Your task to perform on an android device: open app "Microsoft Outlook" Image 0: 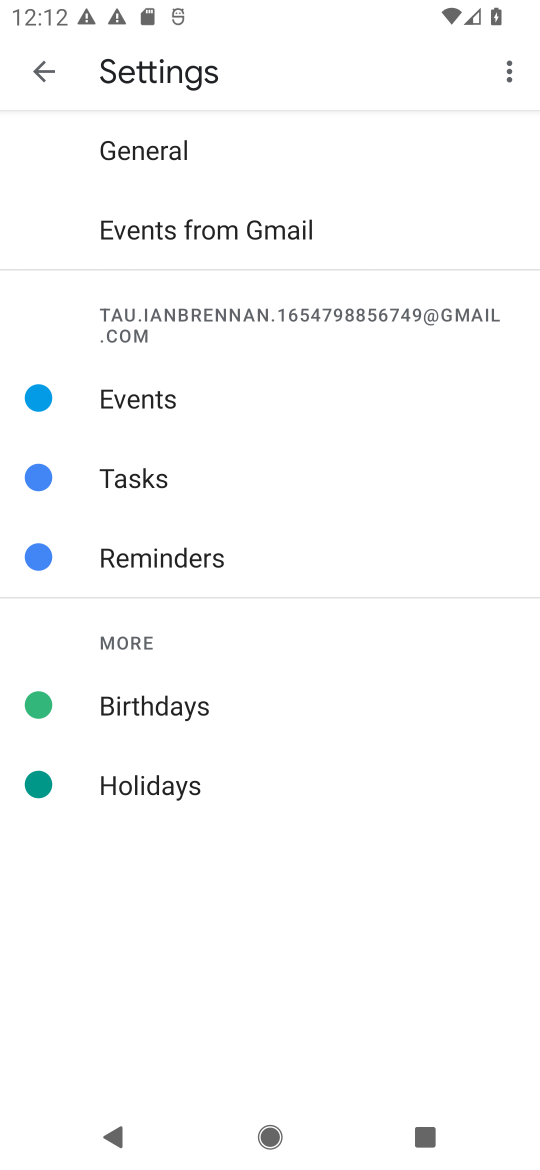
Step 0: click (38, 66)
Your task to perform on an android device: open app "Microsoft Outlook" Image 1: 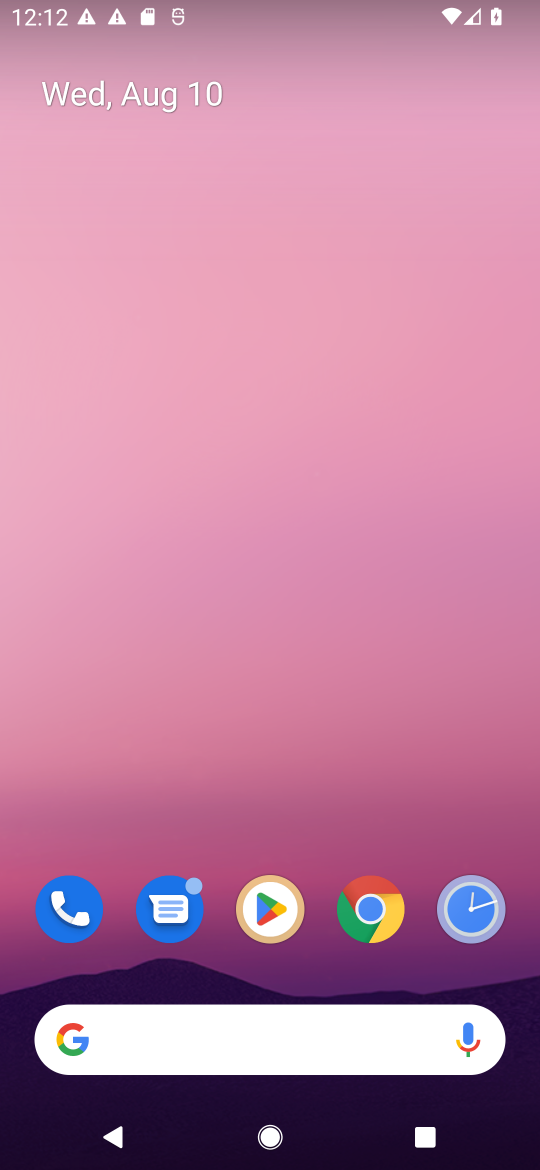
Step 1: drag from (181, 971) to (295, 323)
Your task to perform on an android device: open app "Microsoft Outlook" Image 2: 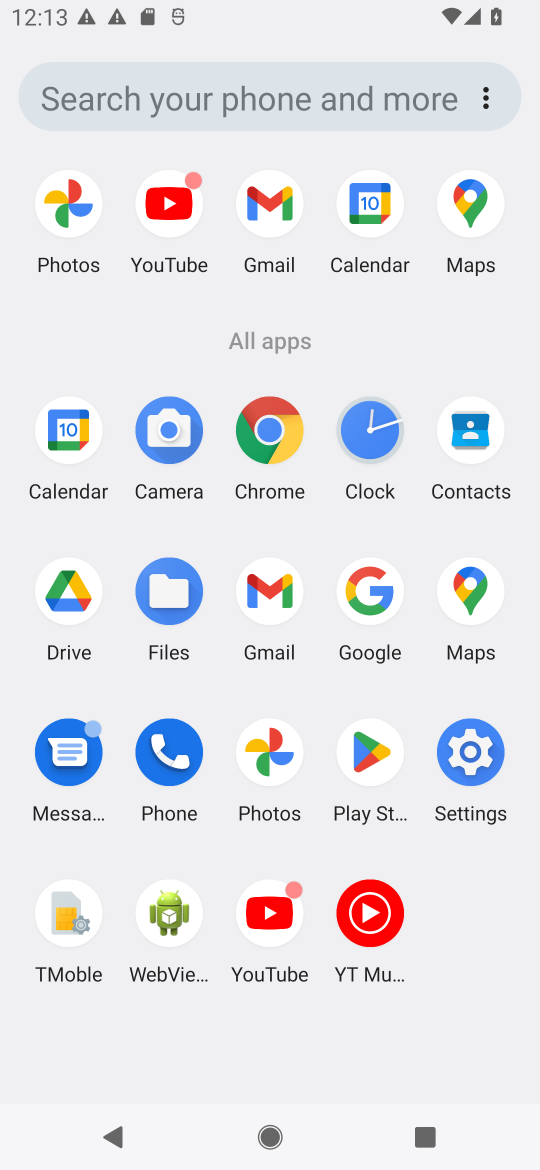
Step 2: click (357, 738)
Your task to perform on an android device: open app "Microsoft Outlook" Image 3: 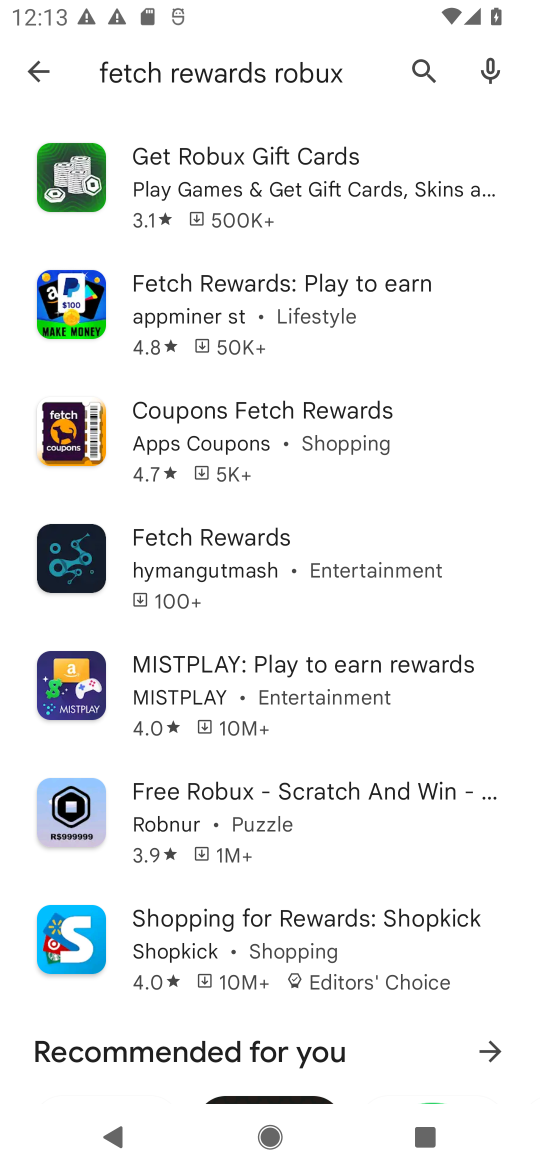
Step 3: click (30, 66)
Your task to perform on an android device: open app "Microsoft Outlook" Image 4: 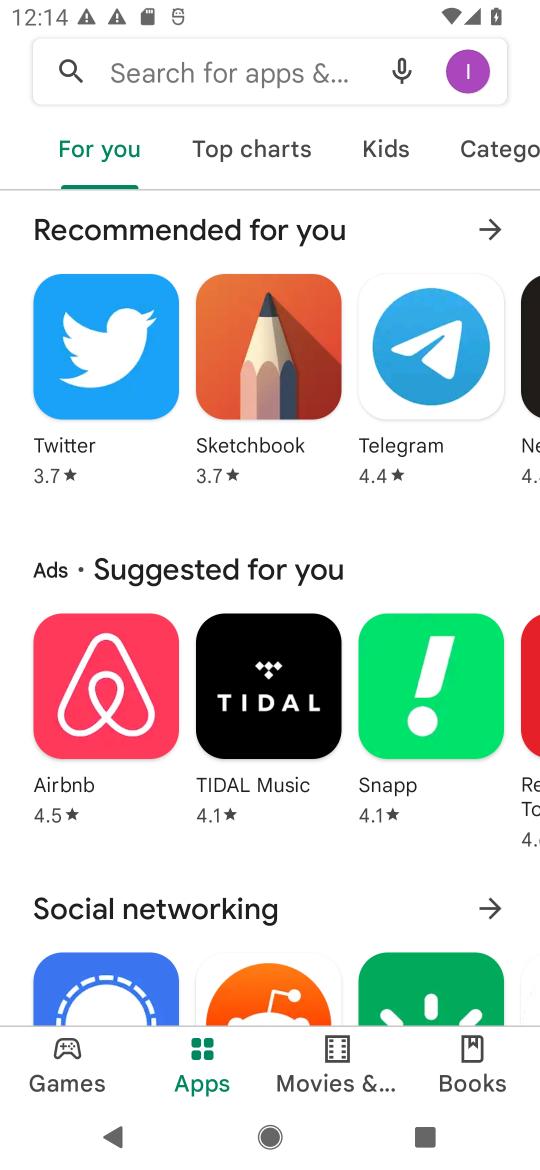
Step 4: click (276, 73)
Your task to perform on an android device: open app "Microsoft Outlook" Image 5: 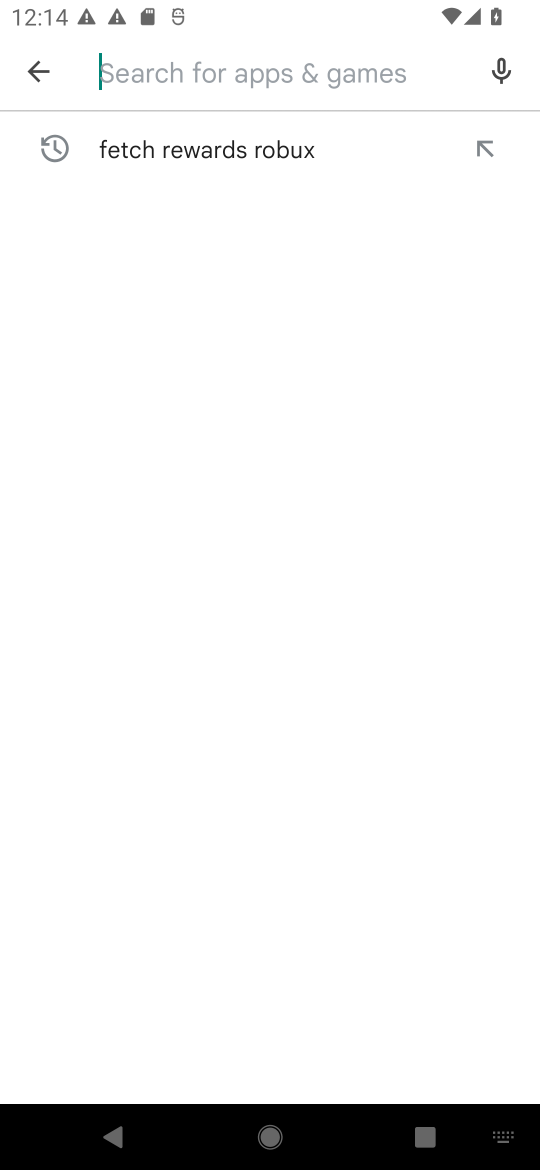
Step 5: type "Microsoft Outlook "
Your task to perform on an android device: open app "Microsoft Outlook" Image 6: 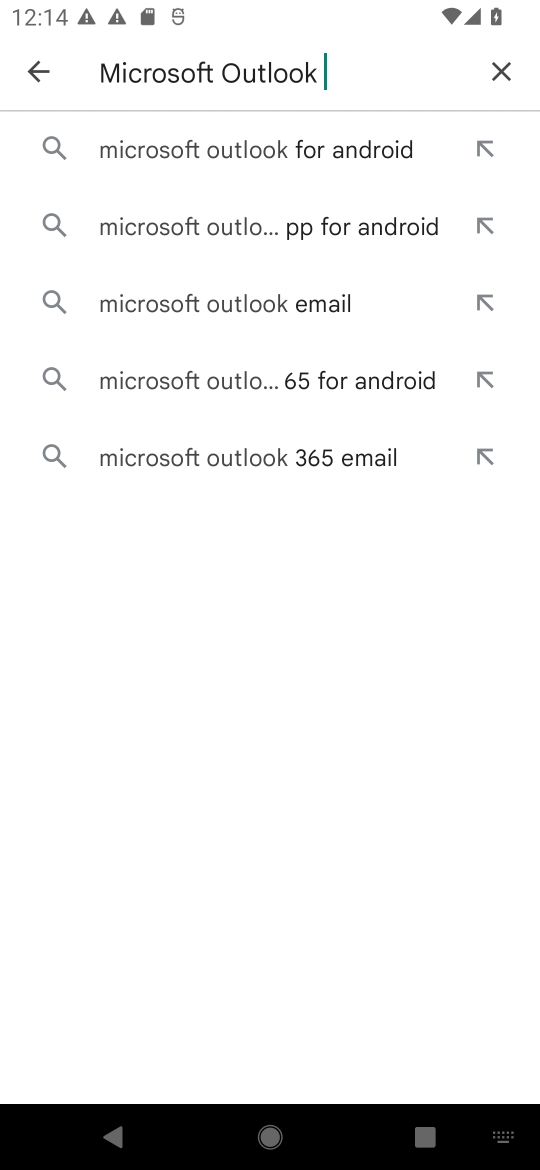
Step 6: click (366, 159)
Your task to perform on an android device: open app "Microsoft Outlook" Image 7: 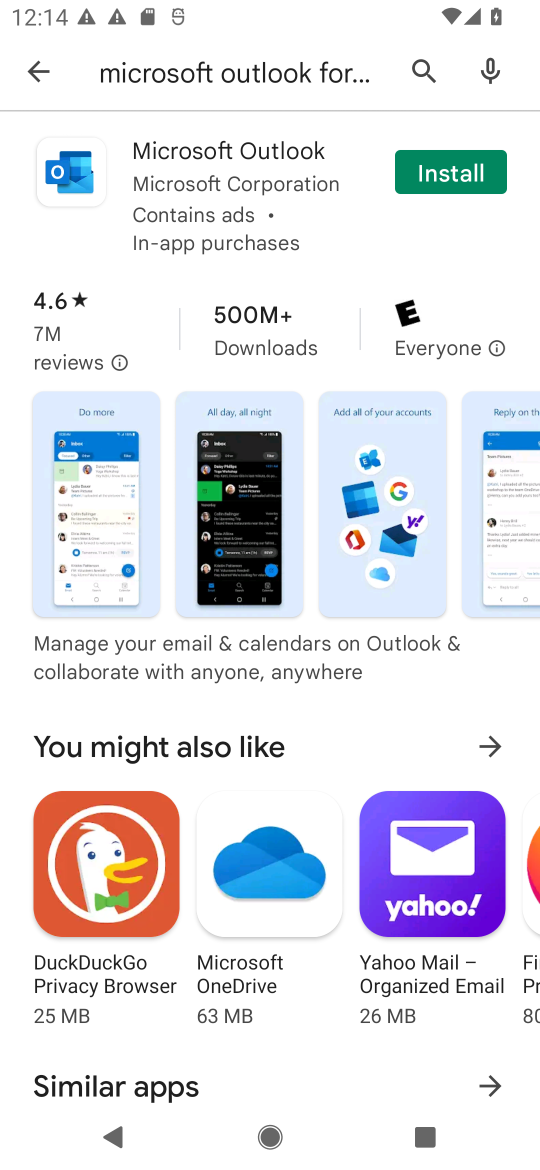
Step 7: click (446, 178)
Your task to perform on an android device: open app "Microsoft Outlook" Image 8: 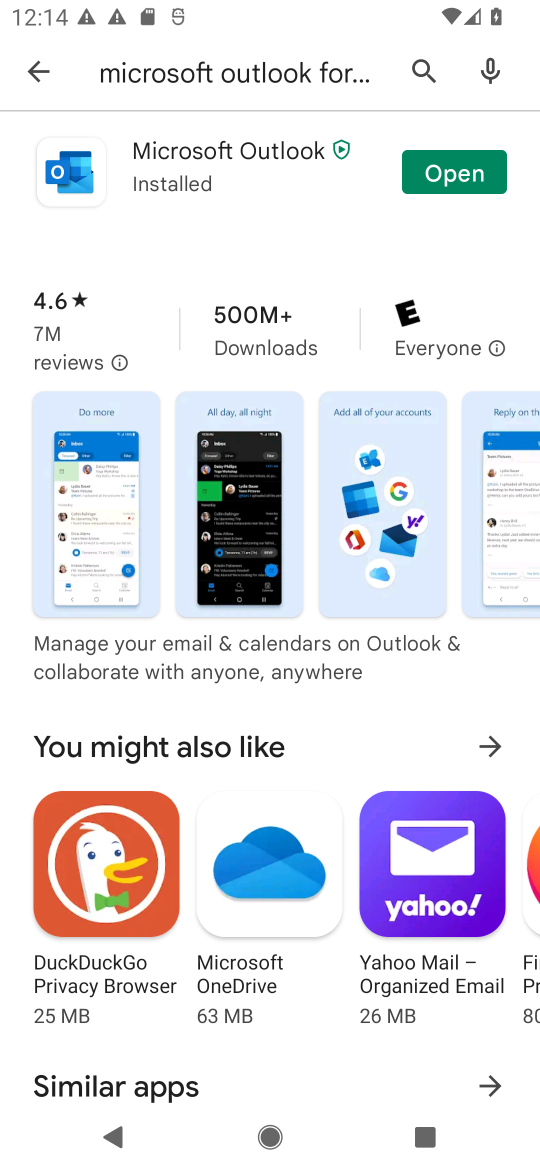
Step 8: click (417, 165)
Your task to perform on an android device: open app "Microsoft Outlook" Image 9: 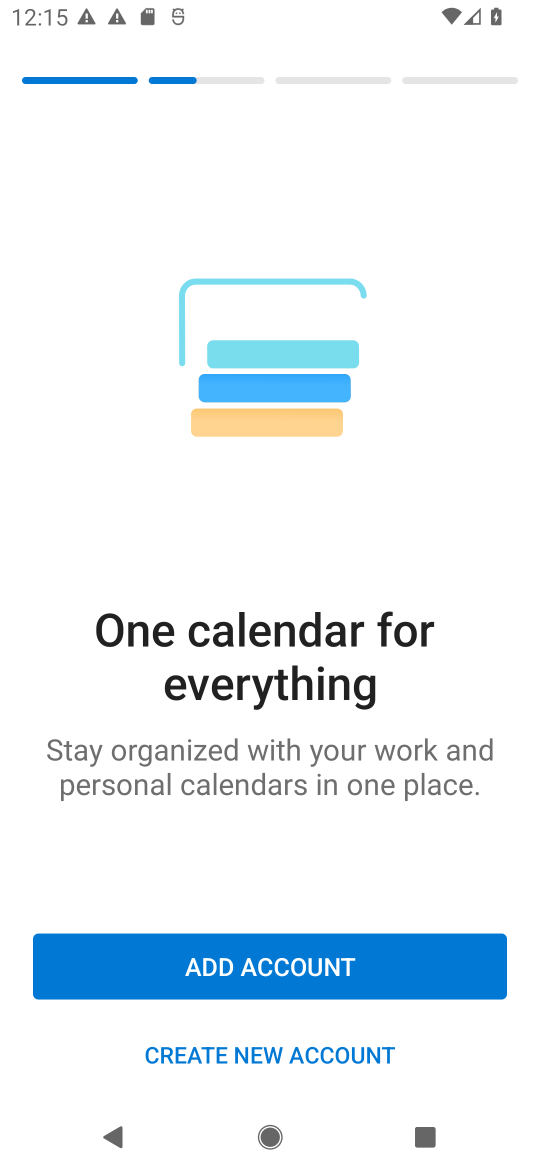
Step 9: task complete